Your task to perform on an android device: turn pop-ups off in chrome Image 0: 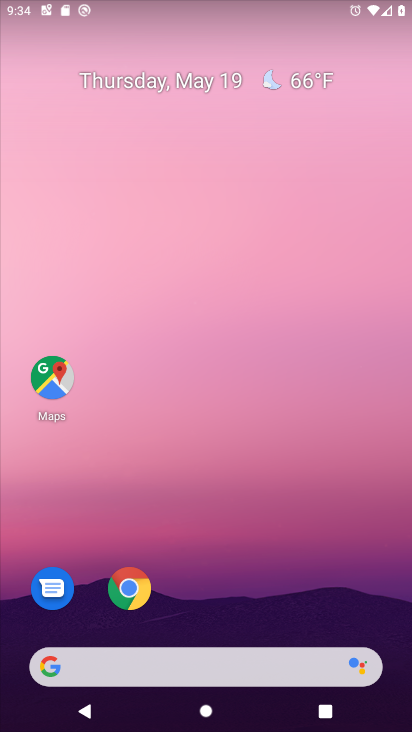
Step 0: drag from (379, 593) to (363, 162)
Your task to perform on an android device: turn pop-ups off in chrome Image 1: 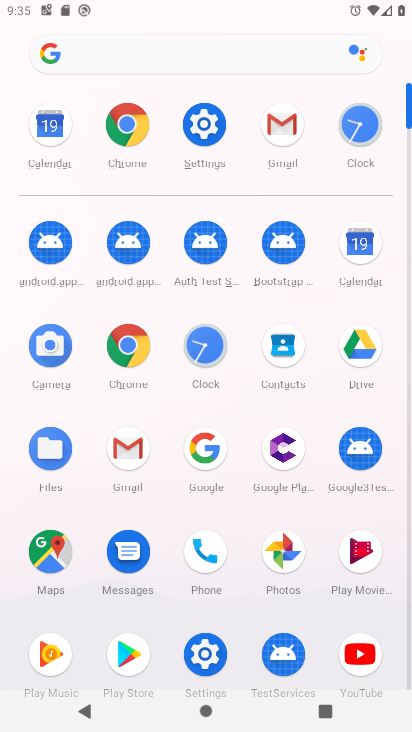
Step 1: click (123, 354)
Your task to perform on an android device: turn pop-ups off in chrome Image 2: 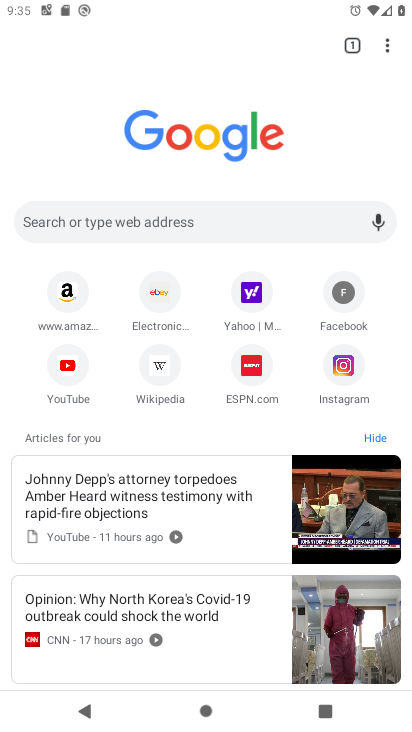
Step 2: click (387, 52)
Your task to perform on an android device: turn pop-ups off in chrome Image 3: 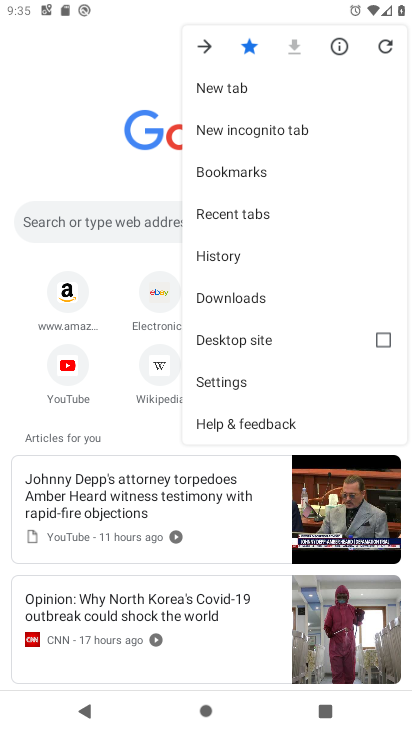
Step 3: click (236, 387)
Your task to perform on an android device: turn pop-ups off in chrome Image 4: 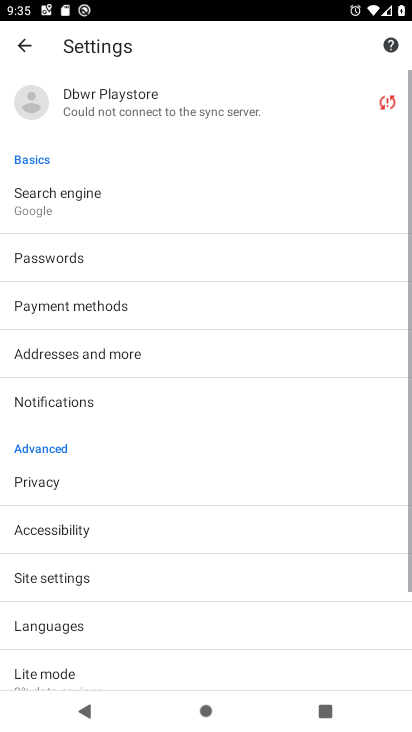
Step 4: drag from (267, 486) to (285, 365)
Your task to perform on an android device: turn pop-ups off in chrome Image 5: 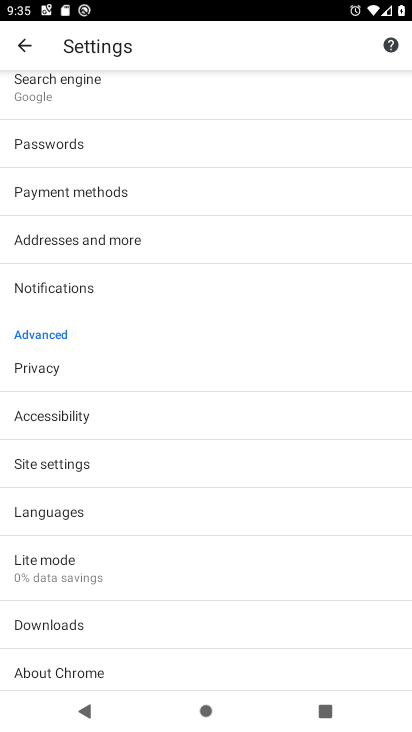
Step 5: drag from (292, 449) to (299, 337)
Your task to perform on an android device: turn pop-ups off in chrome Image 6: 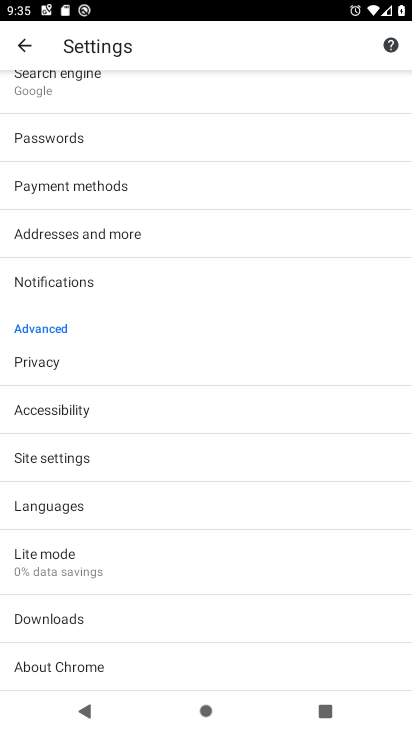
Step 6: drag from (310, 482) to (311, 357)
Your task to perform on an android device: turn pop-ups off in chrome Image 7: 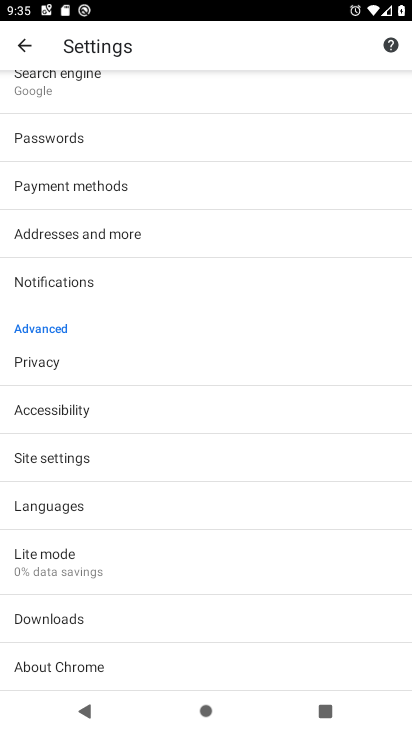
Step 7: drag from (288, 496) to (298, 377)
Your task to perform on an android device: turn pop-ups off in chrome Image 8: 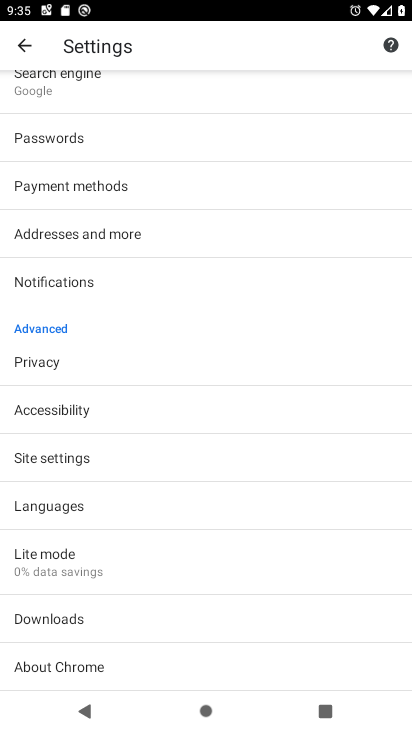
Step 8: drag from (304, 511) to (320, 382)
Your task to perform on an android device: turn pop-ups off in chrome Image 9: 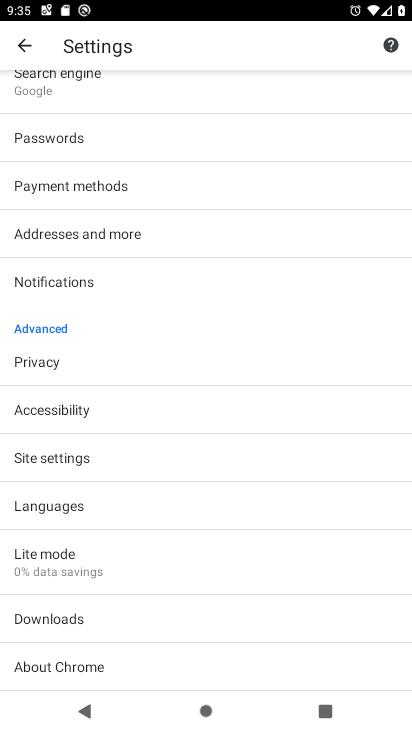
Step 9: drag from (309, 319) to (291, 455)
Your task to perform on an android device: turn pop-ups off in chrome Image 10: 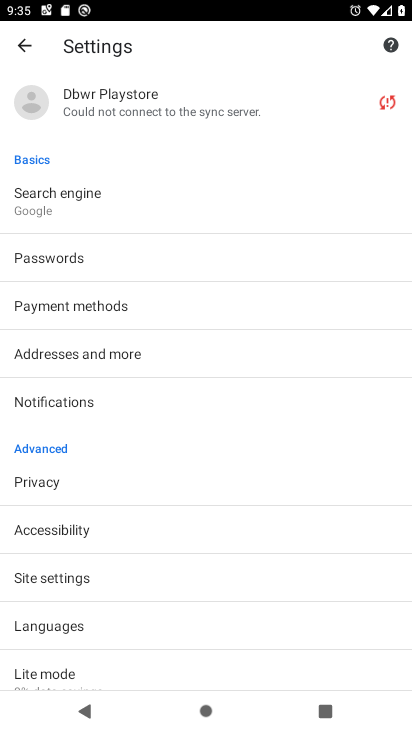
Step 10: click (239, 578)
Your task to perform on an android device: turn pop-ups off in chrome Image 11: 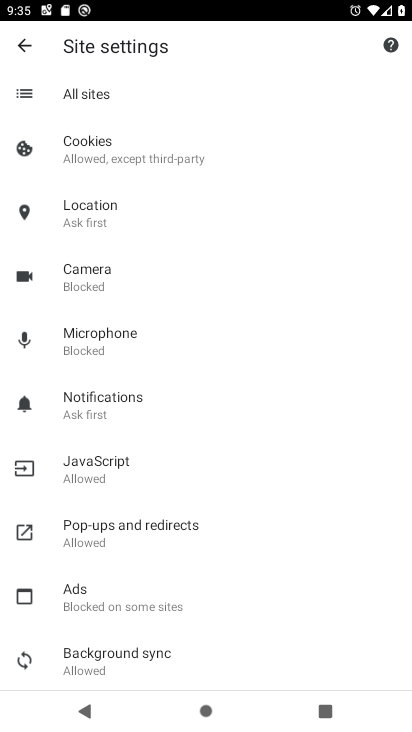
Step 11: click (207, 531)
Your task to perform on an android device: turn pop-ups off in chrome Image 12: 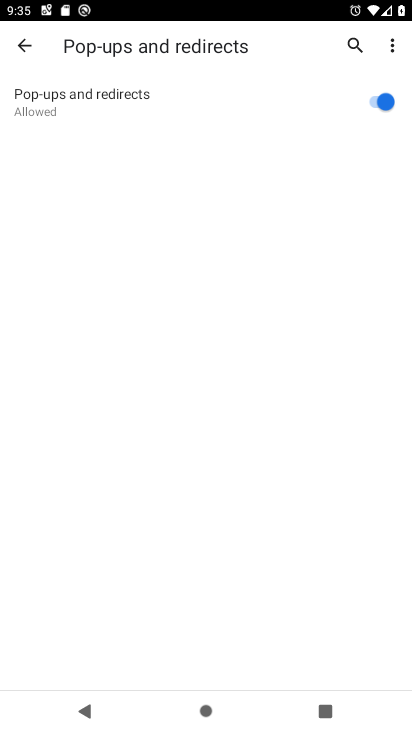
Step 12: click (380, 106)
Your task to perform on an android device: turn pop-ups off in chrome Image 13: 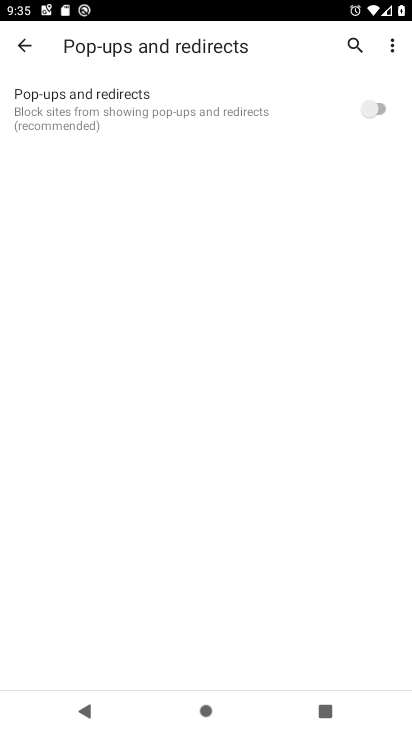
Step 13: task complete